Your task to perform on an android device: Go to notification settings Image 0: 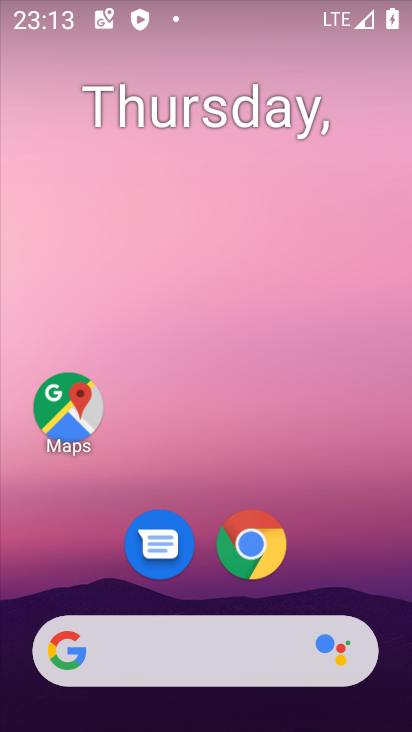
Step 0: drag from (323, 503) to (246, 131)
Your task to perform on an android device: Go to notification settings Image 1: 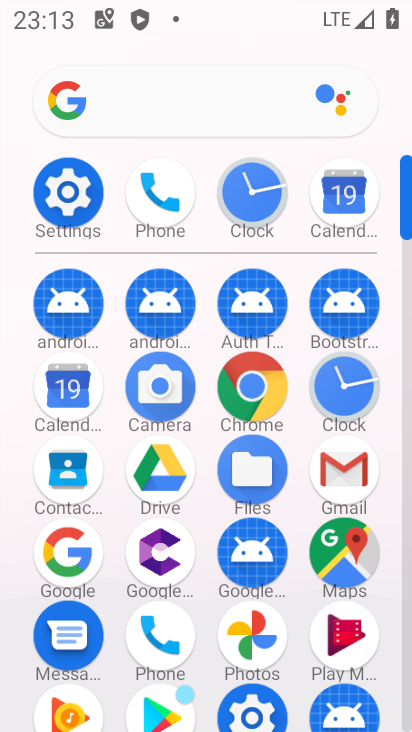
Step 1: click (251, 707)
Your task to perform on an android device: Go to notification settings Image 2: 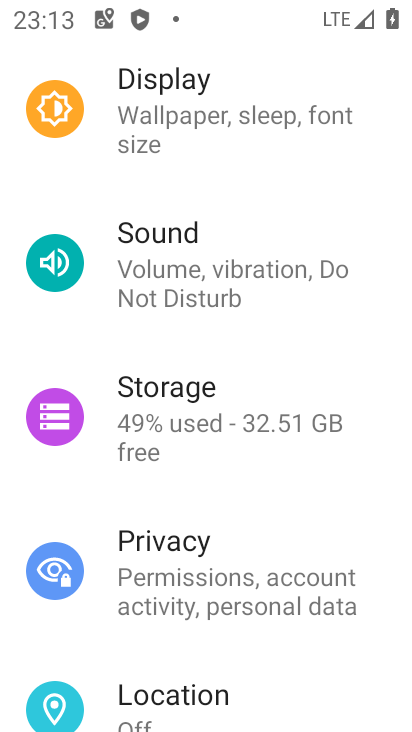
Step 2: drag from (267, 143) to (266, 389)
Your task to perform on an android device: Go to notification settings Image 3: 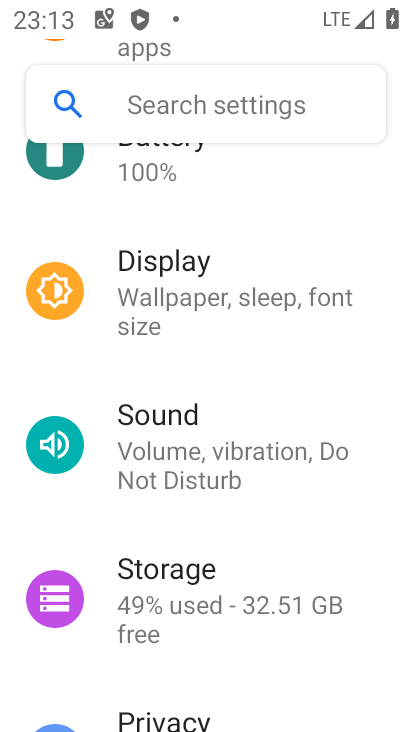
Step 3: drag from (259, 237) to (245, 511)
Your task to perform on an android device: Go to notification settings Image 4: 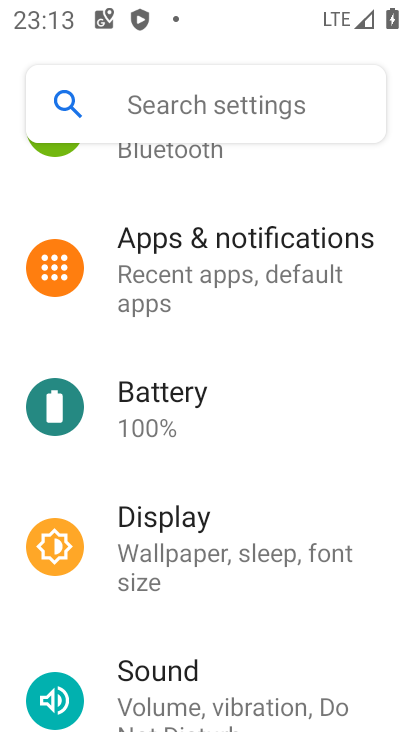
Step 4: click (210, 258)
Your task to perform on an android device: Go to notification settings Image 5: 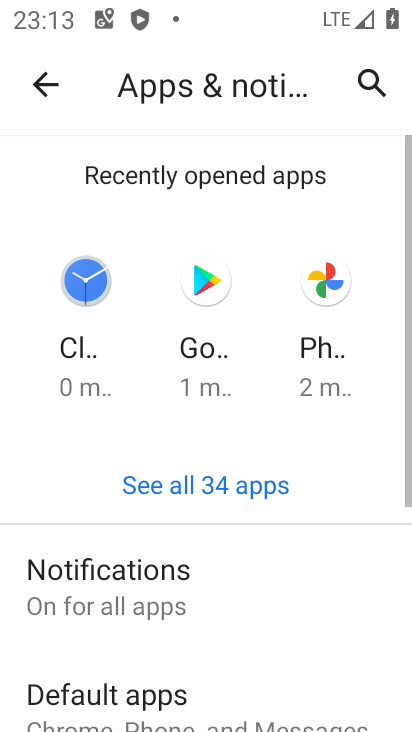
Step 5: drag from (126, 622) to (132, 397)
Your task to perform on an android device: Go to notification settings Image 6: 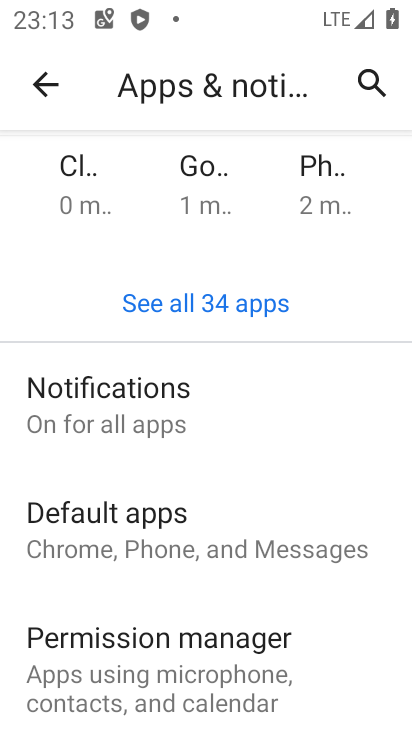
Step 6: click (97, 414)
Your task to perform on an android device: Go to notification settings Image 7: 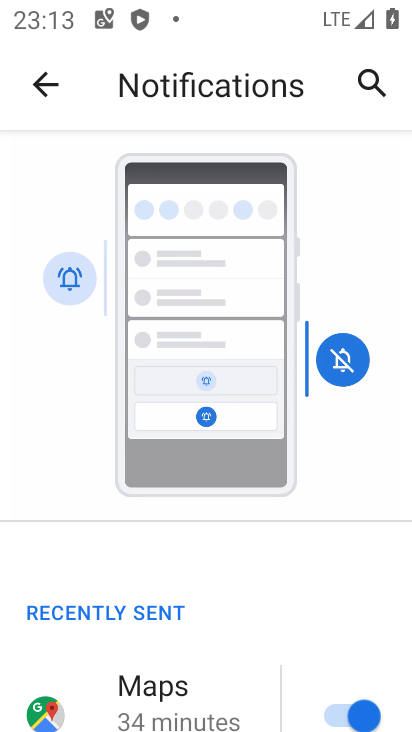
Step 7: task complete